Your task to perform on an android device: change text size in settings app Image 0: 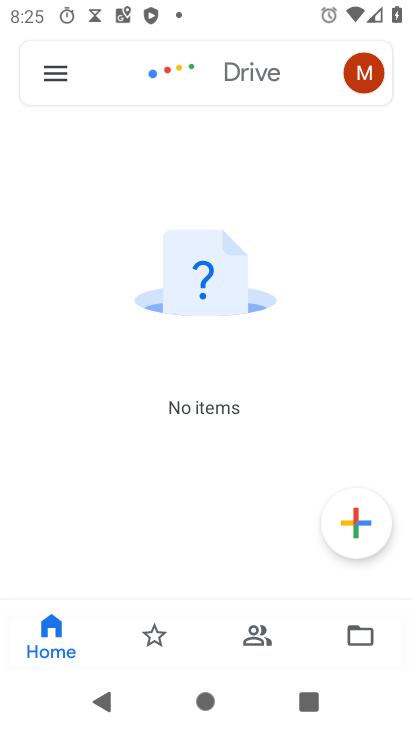
Step 0: press home button
Your task to perform on an android device: change text size in settings app Image 1: 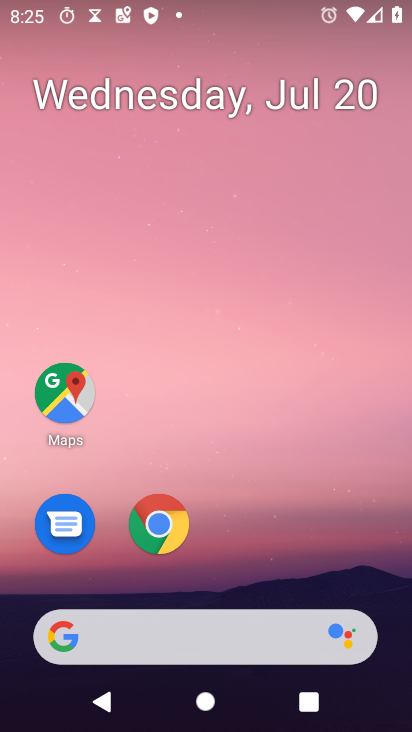
Step 1: drag from (158, 641) to (239, 126)
Your task to perform on an android device: change text size in settings app Image 2: 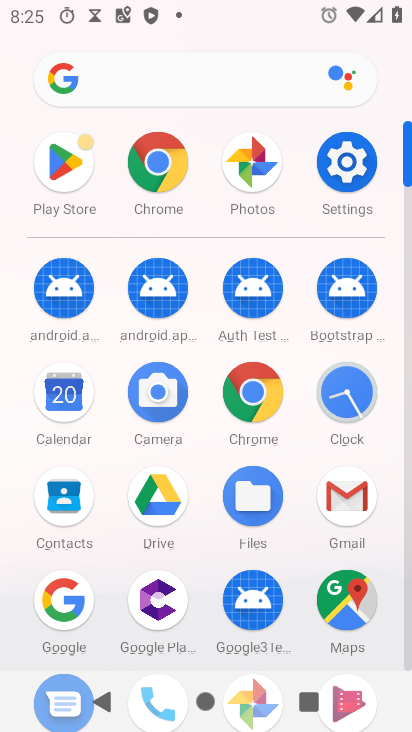
Step 2: click (350, 170)
Your task to perform on an android device: change text size in settings app Image 3: 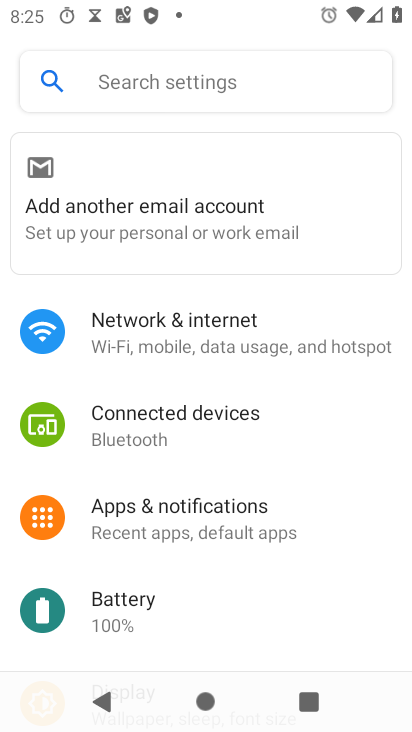
Step 3: drag from (281, 573) to (350, 109)
Your task to perform on an android device: change text size in settings app Image 4: 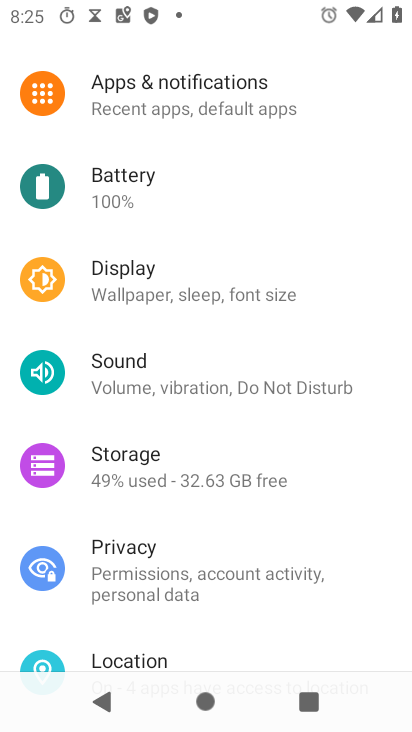
Step 4: click (233, 297)
Your task to perform on an android device: change text size in settings app Image 5: 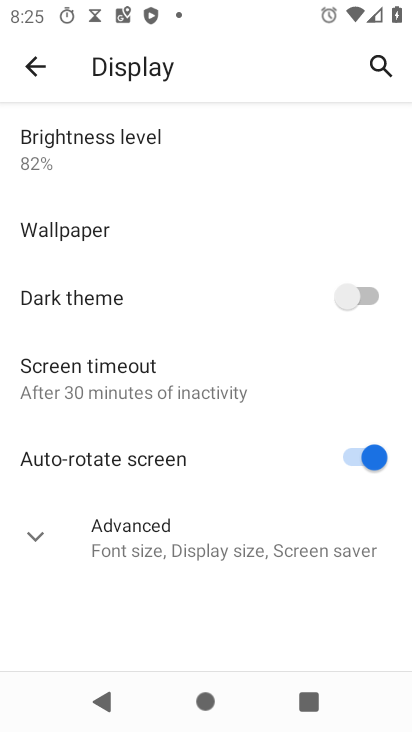
Step 5: click (147, 533)
Your task to perform on an android device: change text size in settings app Image 6: 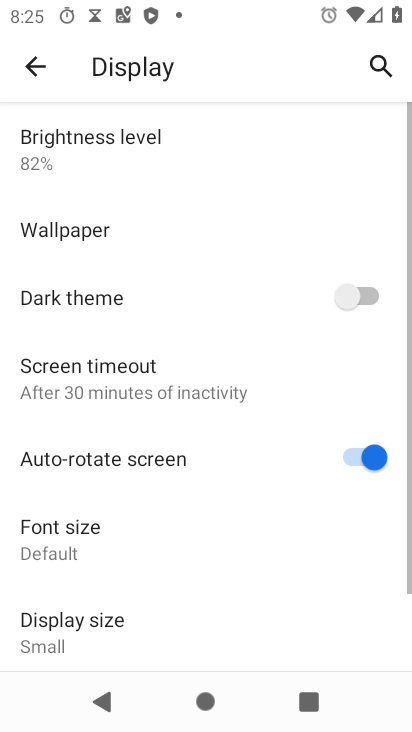
Step 6: drag from (240, 607) to (318, 261)
Your task to perform on an android device: change text size in settings app Image 7: 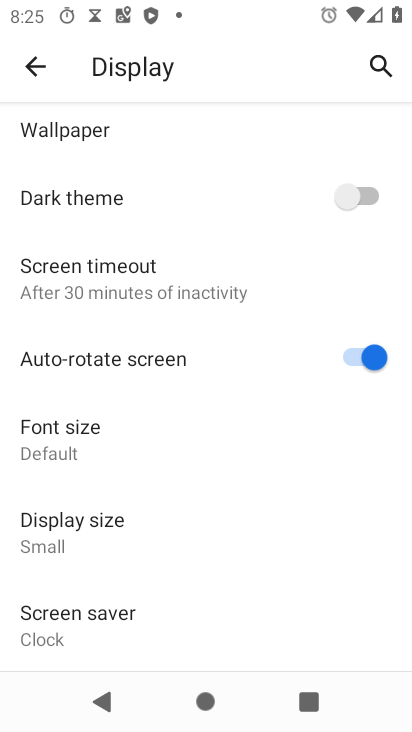
Step 7: click (65, 439)
Your task to perform on an android device: change text size in settings app Image 8: 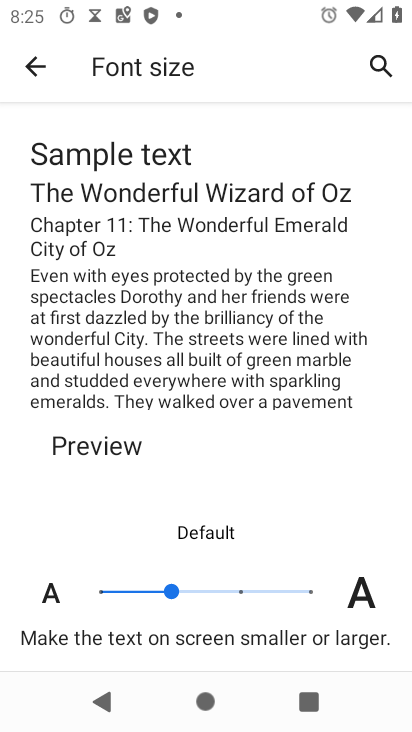
Step 8: click (240, 593)
Your task to perform on an android device: change text size in settings app Image 9: 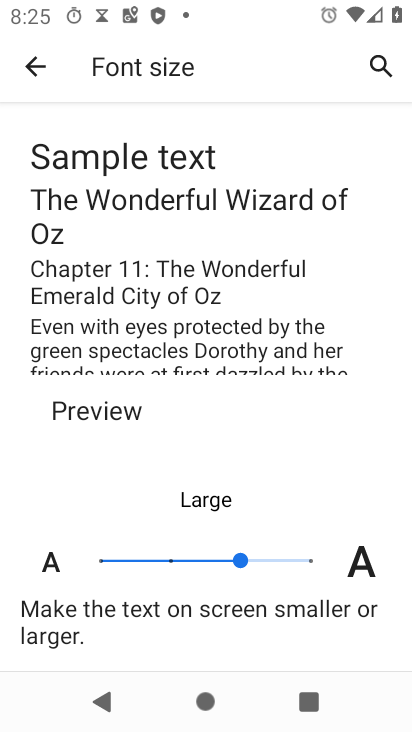
Step 9: task complete